Your task to perform on an android device: stop showing notifications on the lock screen Image 0: 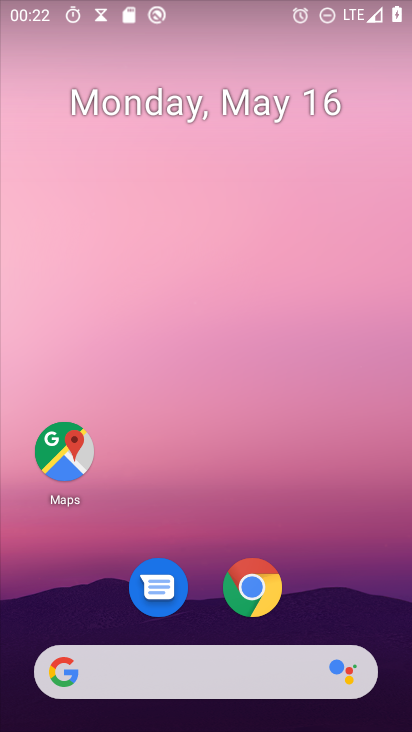
Step 0: drag from (184, 614) to (190, 286)
Your task to perform on an android device: stop showing notifications on the lock screen Image 1: 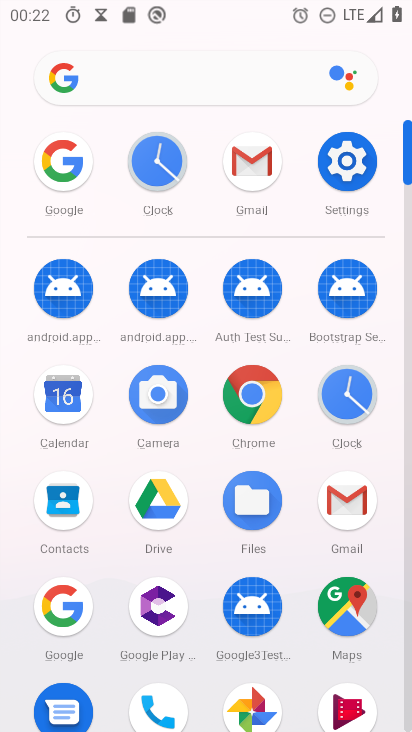
Step 1: click (335, 180)
Your task to perform on an android device: stop showing notifications on the lock screen Image 2: 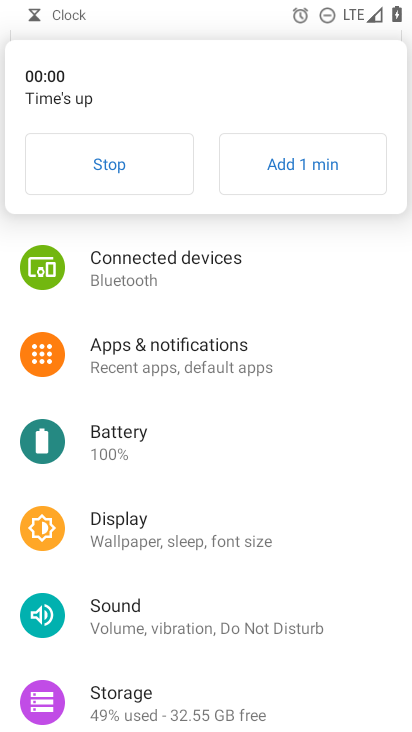
Step 2: drag from (208, 439) to (206, 370)
Your task to perform on an android device: stop showing notifications on the lock screen Image 3: 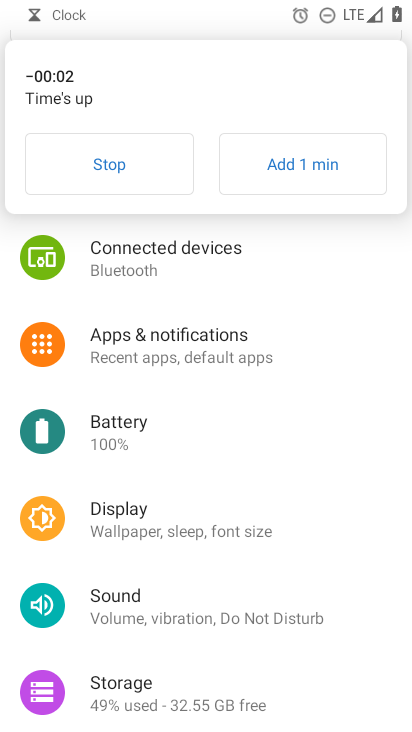
Step 3: click (107, 168)
Your task to perform on an android device: stop showing notifications on the lock screen Image 4: 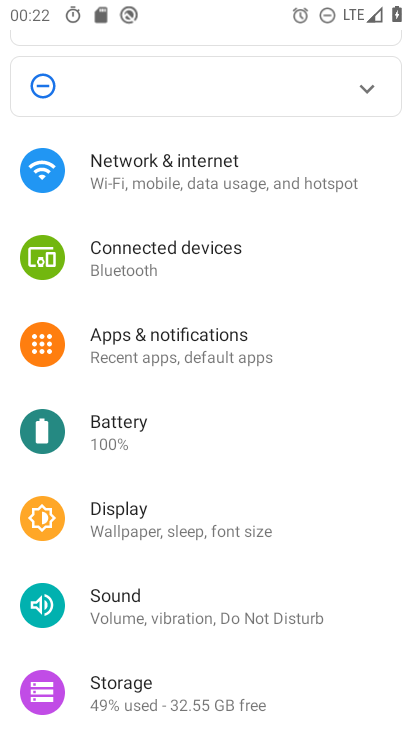
Step 4: click (193, 351)
Your task to perform on an android device: stop showing notifications on the lock screen Image 5: 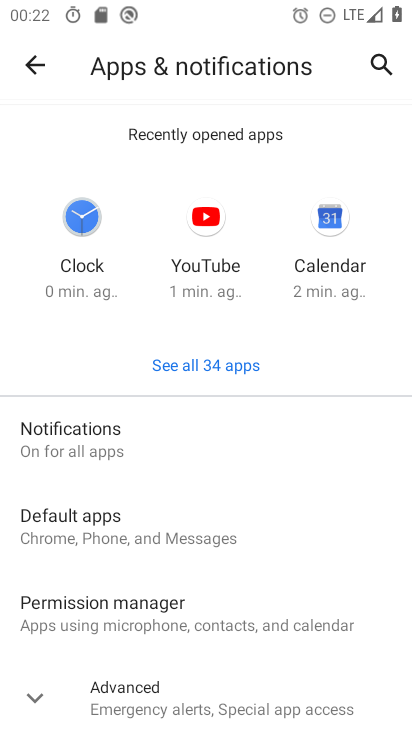
Step 5: drag from (255, 572) to (219, 279)
Your task to perform on an android device: stop showing notifications on the lock screen Image 6: 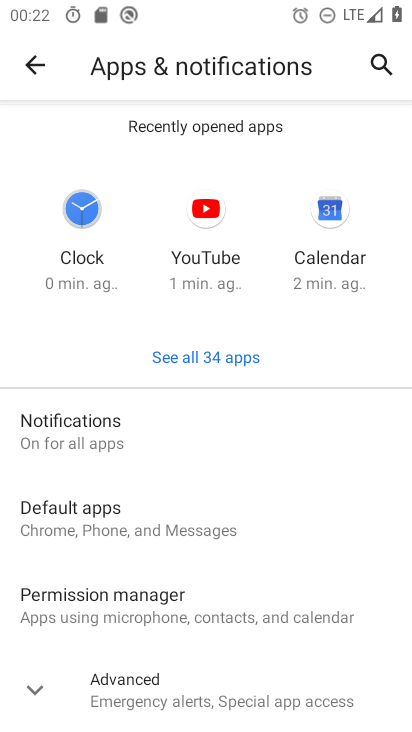
Step 6: drag from (249, 620) to (254, 387)
Your task to perform on an android device: stop showing notifications on the lock screen Image 7: 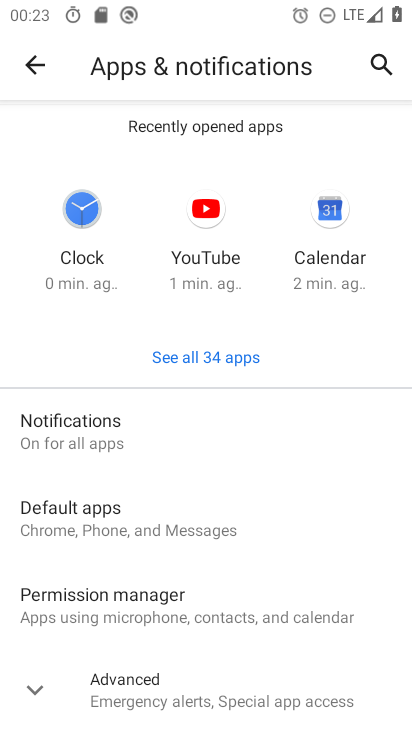
Step 7: click (114, 432)
Your task to perform on an android device: stop showing notifications on the lock screen Image 8: 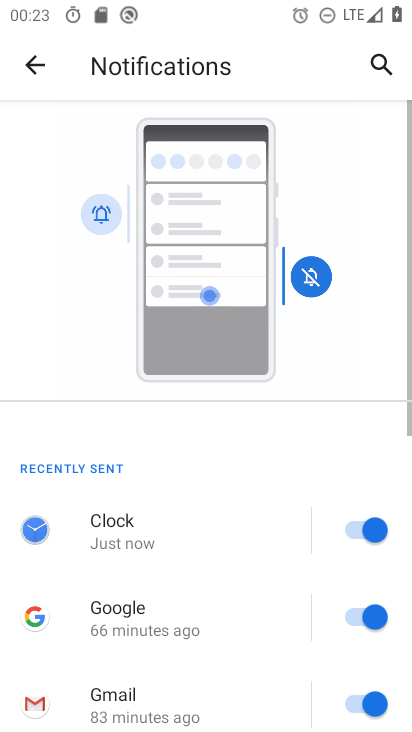
Step 8: drag from (224, 644) to (245, 298)
Your task to perform on an android device: stop showing notifications on the lock screen Image 9: 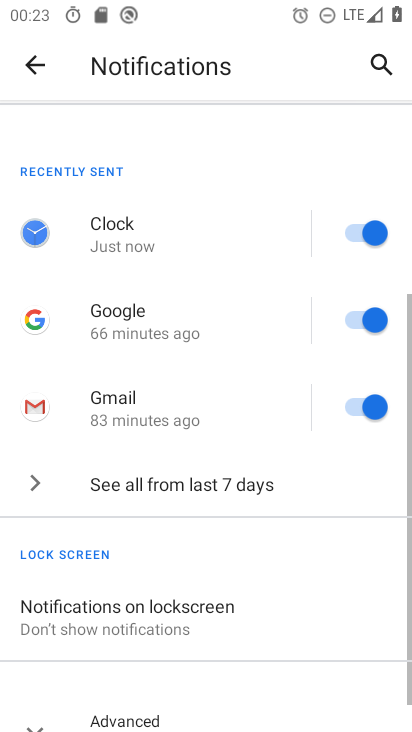
Step 9: drag from (245, 490) to (227, 263)
Your task to perform on an android device: stop showing notifications on the lock screen Image 10: 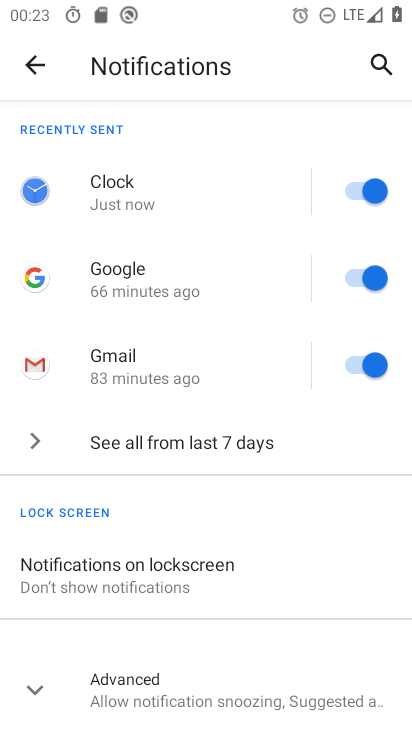
Step 10: click (178, 574)
Your task to perform on an android device: stop showing notifications on the lock screen Image 11: 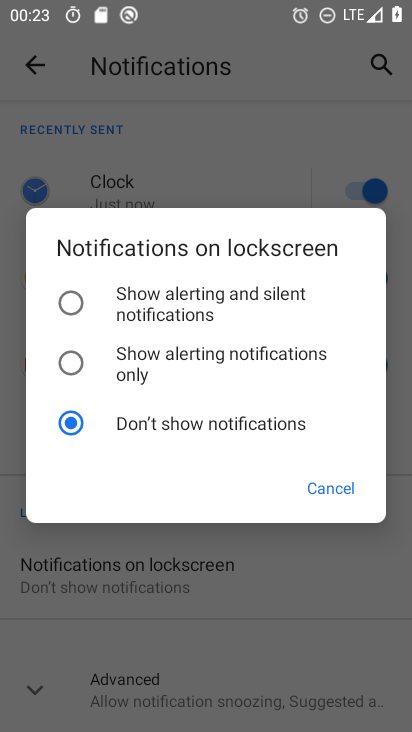
Step 11: click (114, 295)
Your task to perform on an android device: stop showing notifications on the lock screen Image 12: 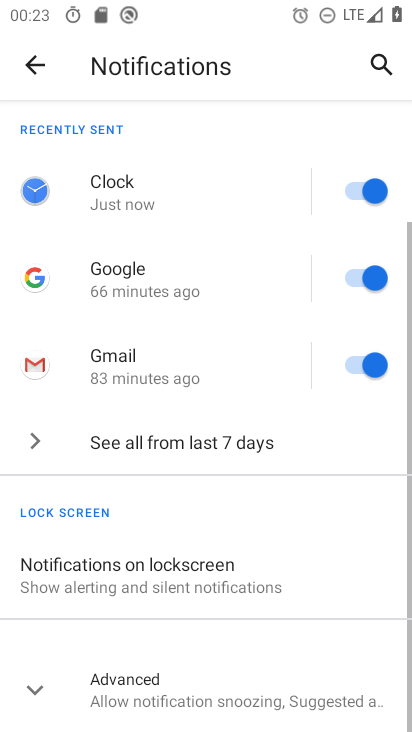
Step 12: task complete